Your task to perform on an android device: toggle notifications settings in the gmail app Image 0: 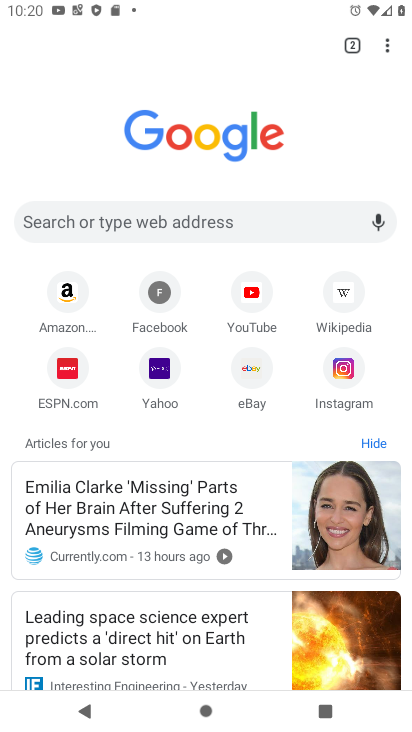
Step 0: press home button
Your task to perform on an android device: toggle notifications settings in the gmail app Image 1: 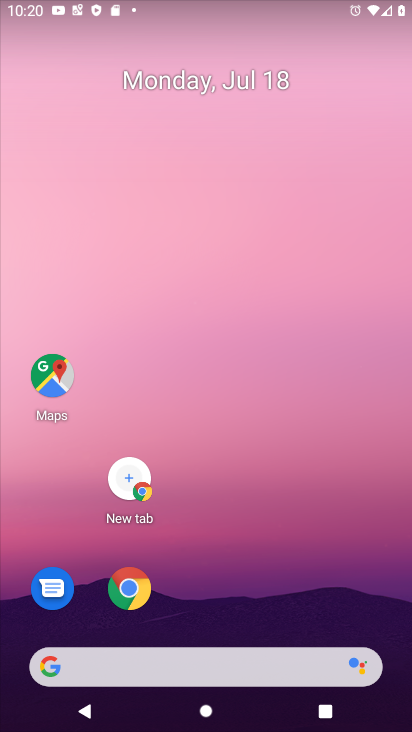
Step 1: drag from (221, 578) to (240, 20)
Your task to perform on an android device: toggle notifications settings in the gmail app Image 2: 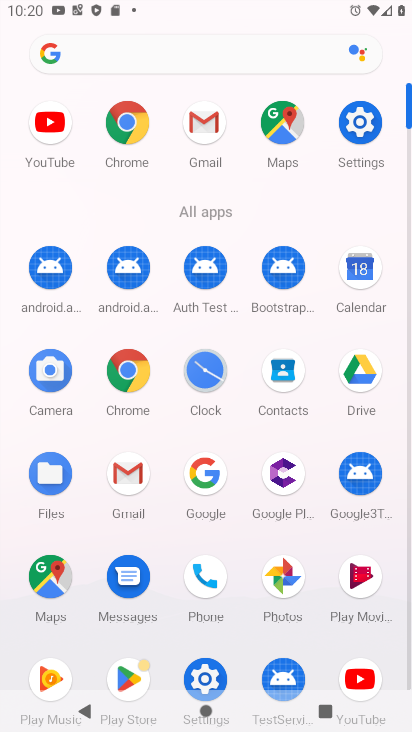
Step 2: click (358, 131)
Your task to perform on an android device: toggle notifications settings in the gmail app Image 3: 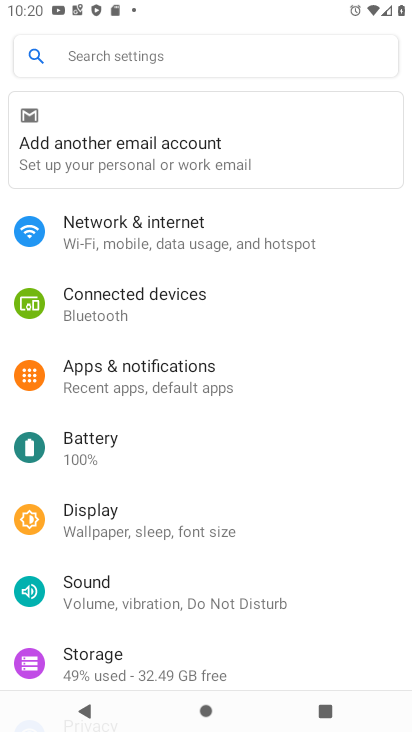
Step 3: click (212, 376)
Your task to perform on an android device: toggle notifications settings in the gmail app Image 4: 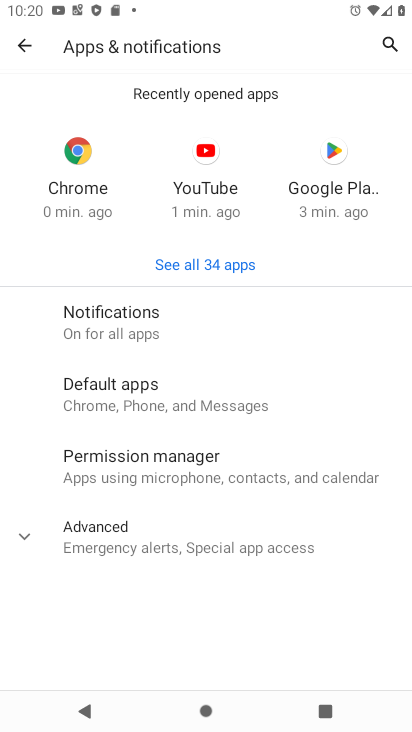
Step 4: click (139, 308)
Your task to perform on an android device: toggle notifications settings in the gmail app Image 5: 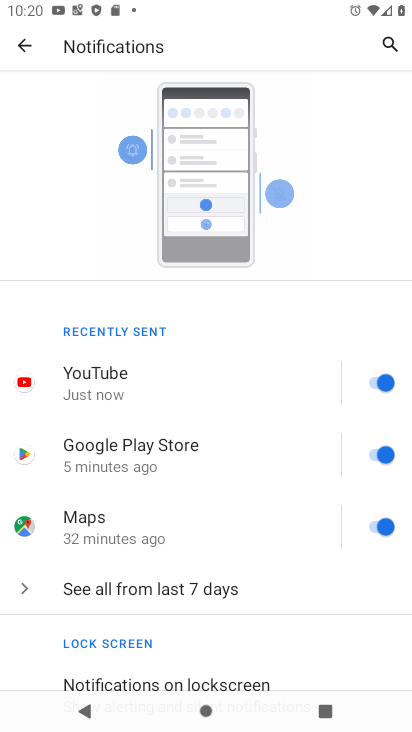
Step 5: click (201, 271)
Your task to perform on an android device: toggle notifications settings in the gmail app Image 6: 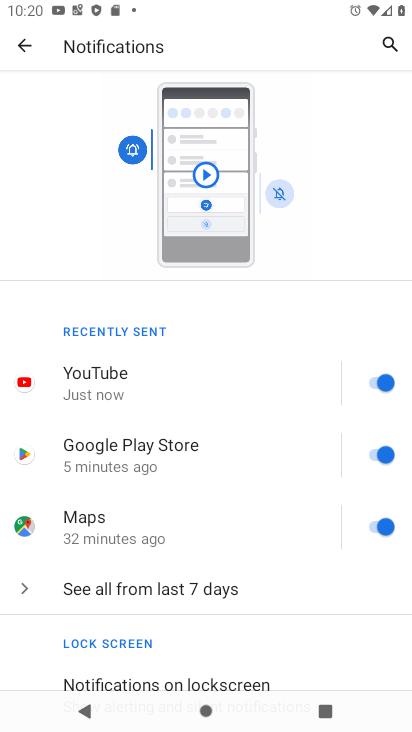
Step 6: click (33, 43)
Your task to perform on an android device: toggle notifications settings in the gmail app Image 7: 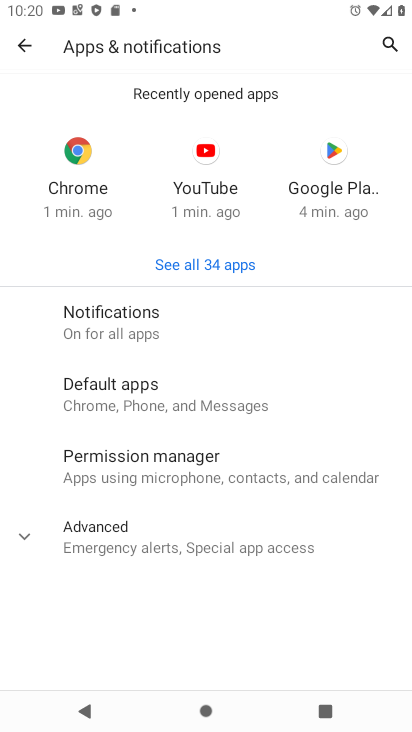
Step 7: click (263, 272)
Your task to perform on an android device: toggle notifications settings in the gmail app Image 8: 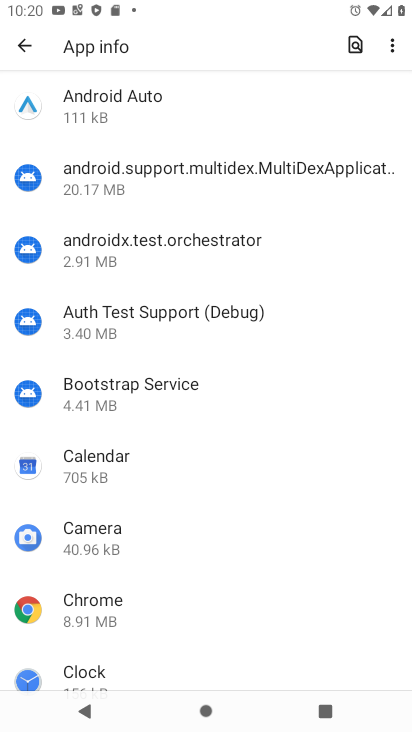
Step 8: drag from (99, 671) to (198, 202)
Your task to perform on an android device: toggle notifications settings in the gmail app Image 9: 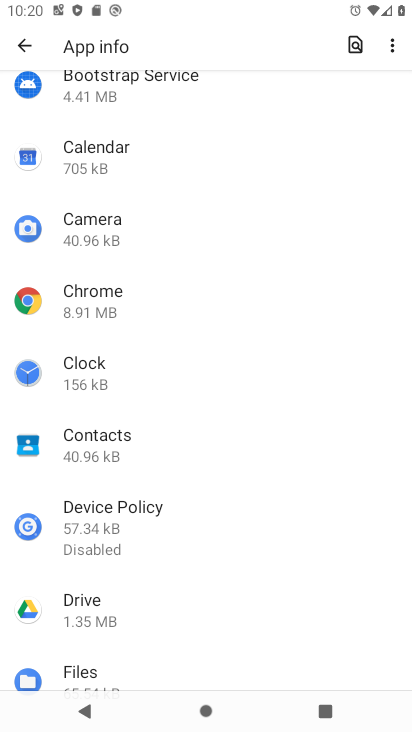
Step 9: drag from (199, 599) to (178, 249)
Your task to perform on an android device: toggle notifications settings in the gmail app Image 10: 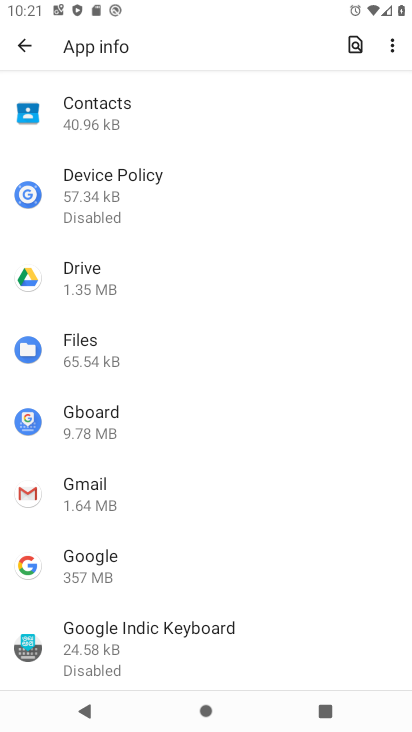
Step 10: click (91, 498)
Your task to perform on an android device: toggle notifications settings in the gmail app Image 11: 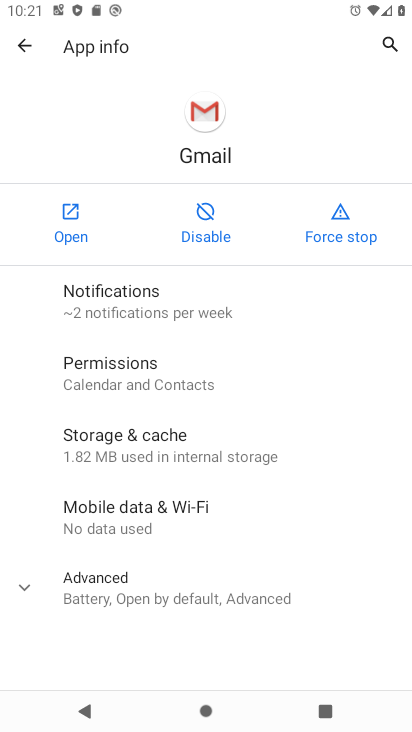
Step 11: click (169, 277)
Your task to perform on an android device: toggle notifications settings in the gmail app Image 12: 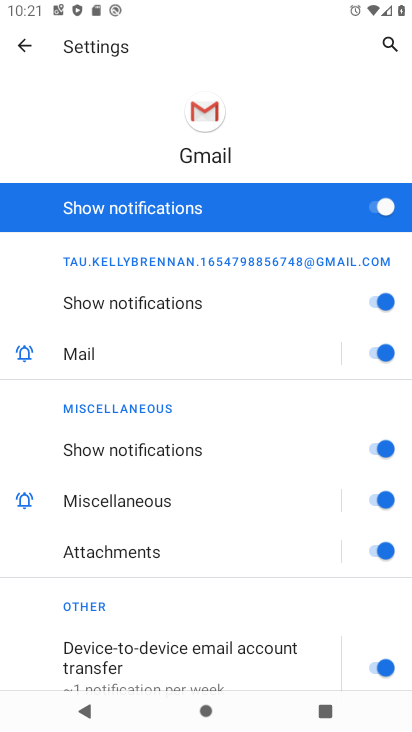
Step 12: click (377, 295)
Your task to perform on an android device: toggle notifications settings in the gmail app Image 13: 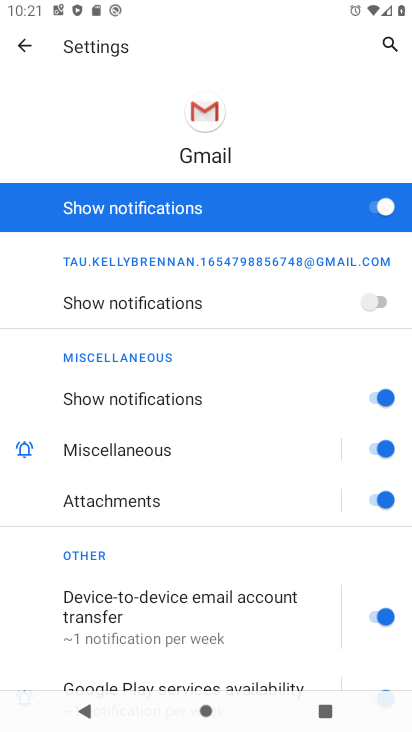
Step 13: click (384, 403)
Your task to perform on an android device: toggle notifications settings in the gmail app Image 14: 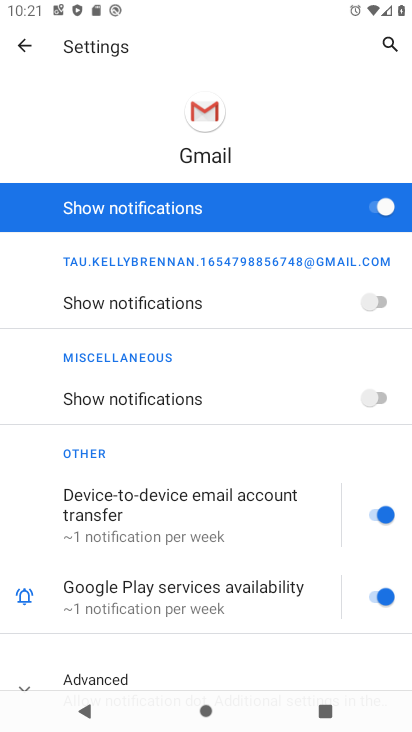
Step 14: click (376, 503)
Your task to perform on an android device: toggle notifications settings in the gmail app Image 15: 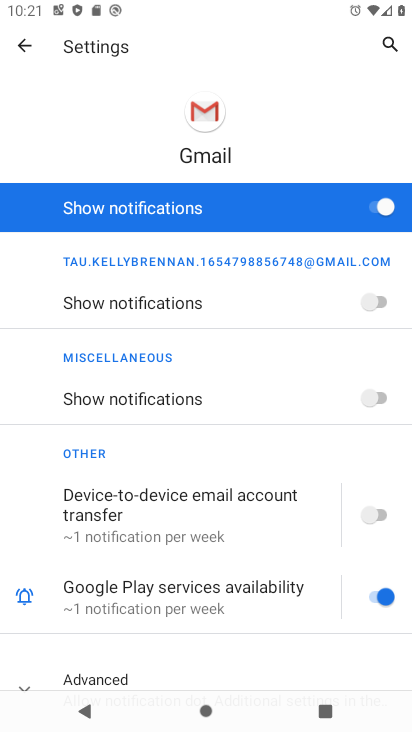
Step 15: task complete